Your task to perform on an android device: Go to Wikipedia Image 0: 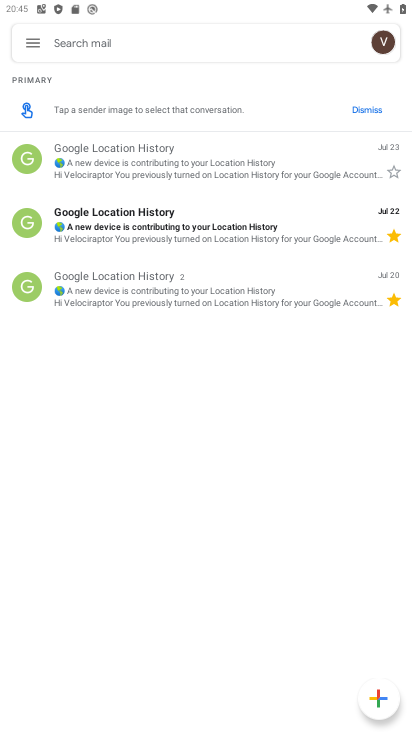
Step 0: press home button
Your task to perform on an android device: Go to Wikipedia Image 1: 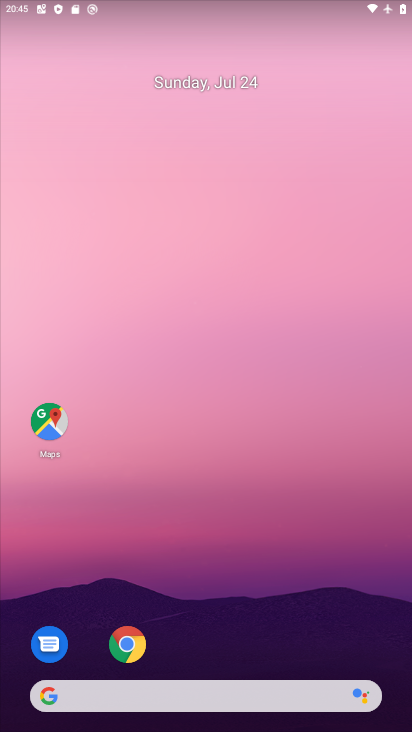
Step 1: click (128, 646)
Your task to perform on an android device: Go to Wikipedia Image 2: 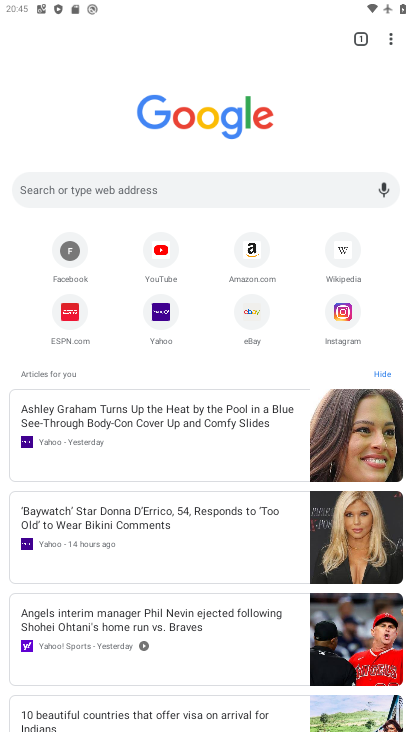
Step 2: click (138, 181)
Your task to perform on an android device: Go to Wikipedia Image 3: 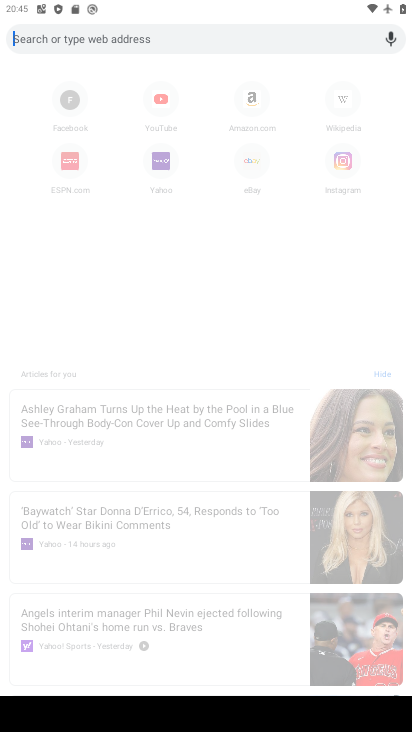
Step 3: type "wikipedia"
Your task to perform on an android device: Go to Wikipedia Image 4: 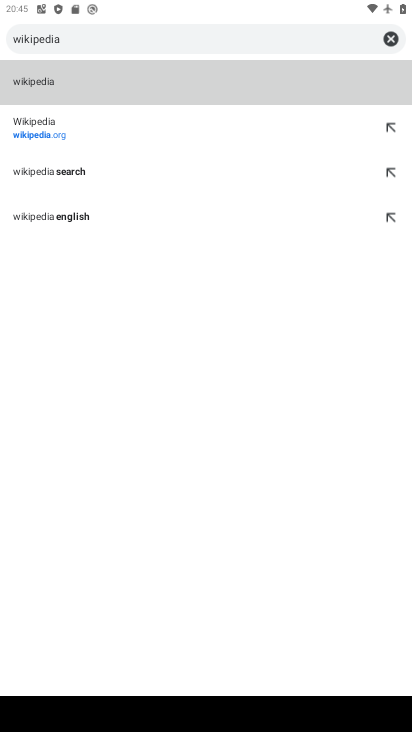
Step 4: click (54, 87)
Your task to perform on an android device: Go to Wikipedia Image 5: 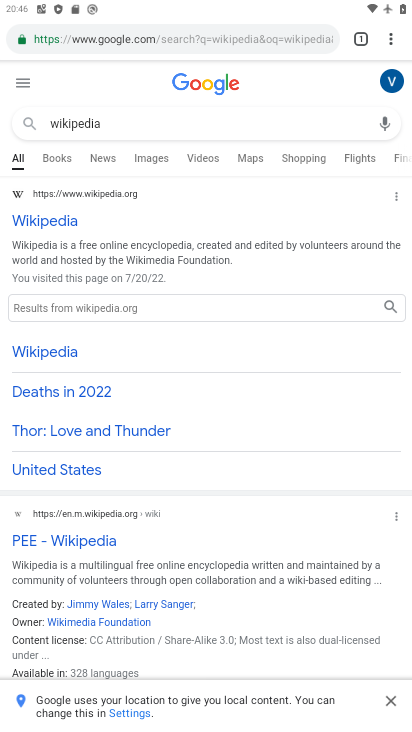
Step 5: click (54, 231)
Your task to perform on an android device: Go to Wikipedia Image 6: 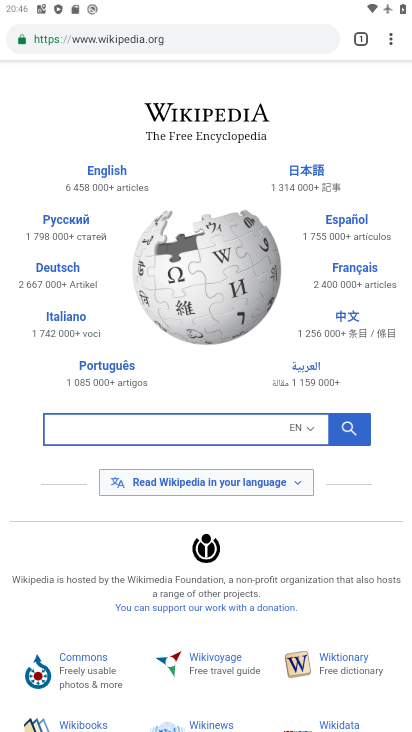
Step 6: task complete